Your task to perform on an android device: refresh tabs in the chrome app Image 0: 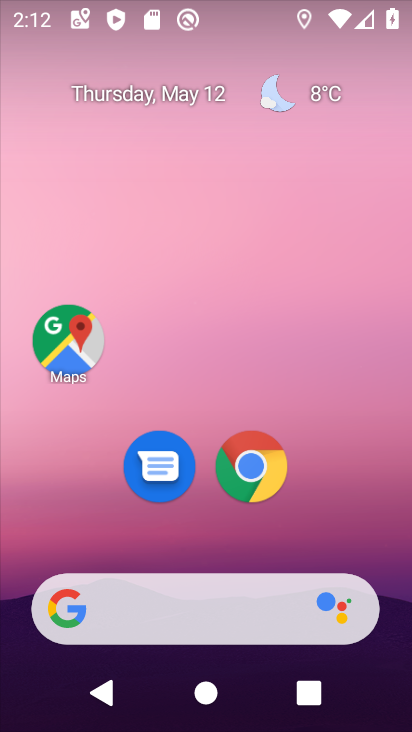
Step 0: click (254, 467)
Your task to perform on an android device: refresh tabs in the chrome app Image 1: 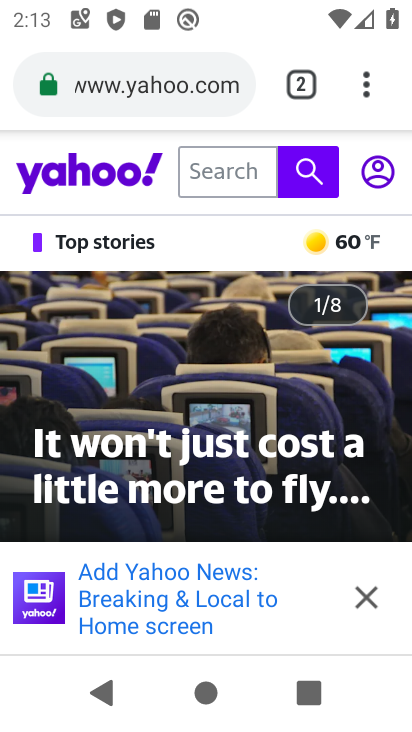
Step 1: click (362, 88)
Your task to perform on an android device: refresh tabs in the chrome app Image 2: 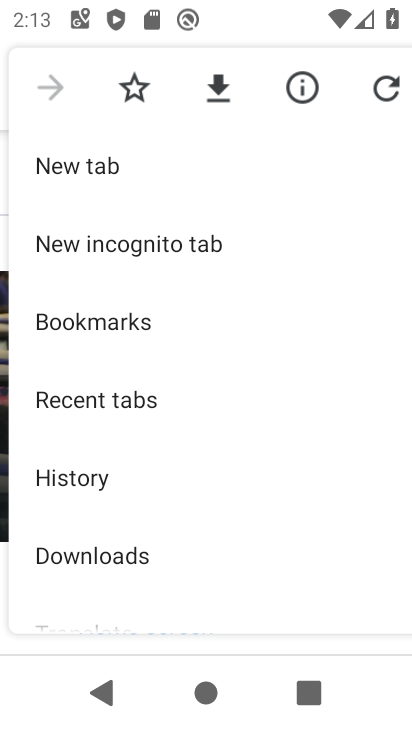
Step 2: click (385, 90)
Your task to perform on an android device: refresh tabs in the chrome app Image 3: 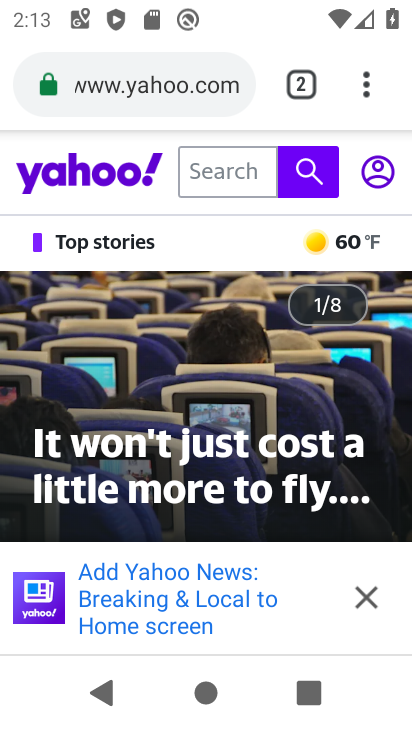
Step 3: task complete